Your task to perform on an android device: uninstall "Nova Launcher" Image 0: 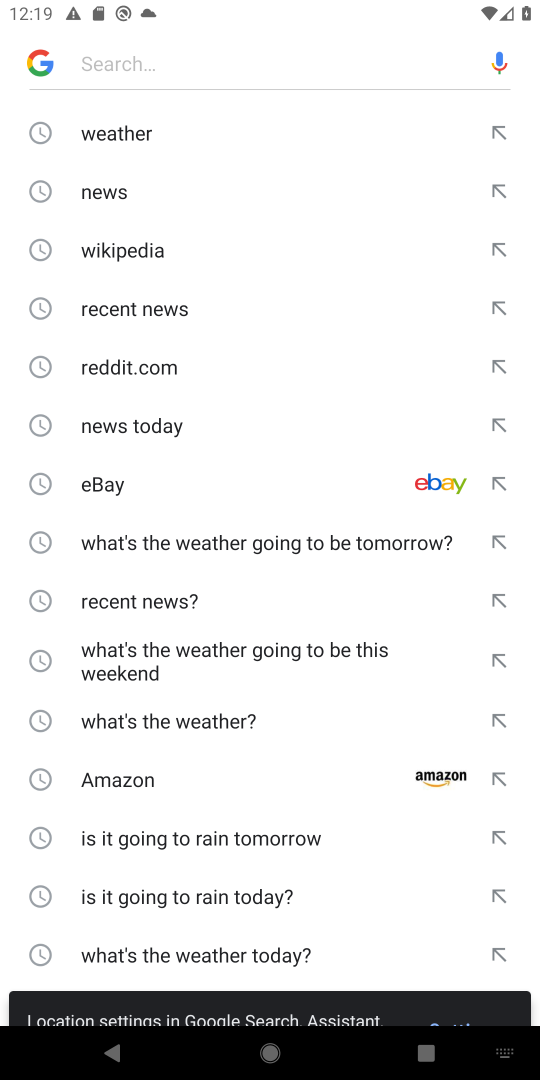
Step 0: press home button
Your task to perform on an android device: uninstall "Nova Launcher" Image 1: 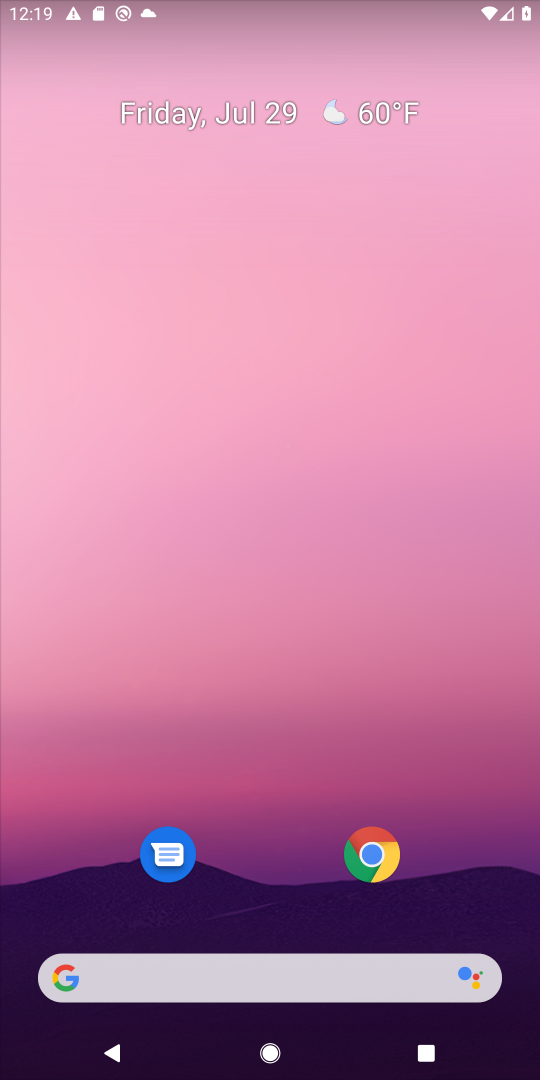
Step 1: drag from (239, 903) to (325, 0)
Your task to perform on an android device: uninstall "Nova Launcher" Image 2: 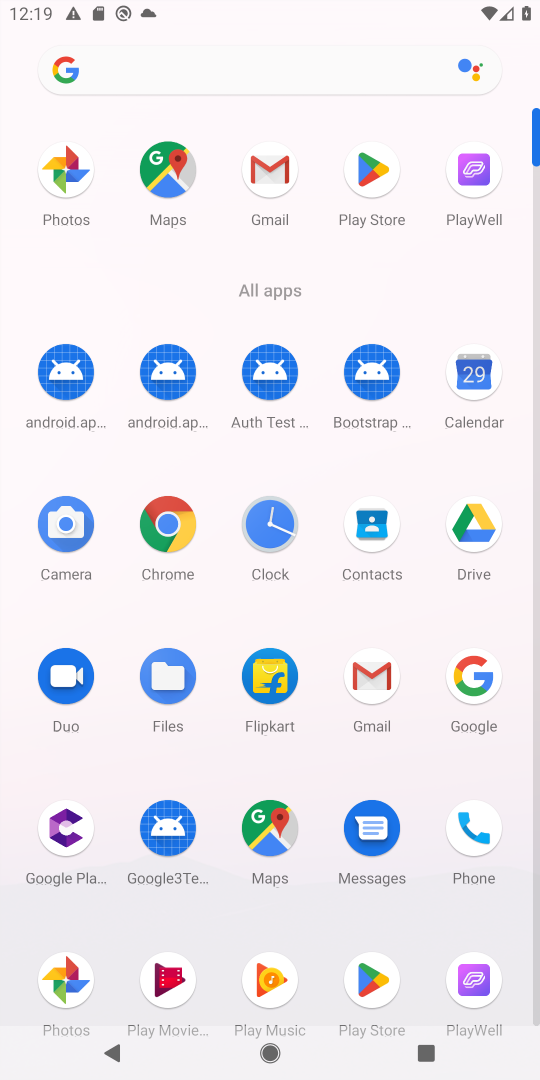
Step 2: click (361, 173)
Your task to perform on an android device: uninstall "Nova Launcher" Image 3: 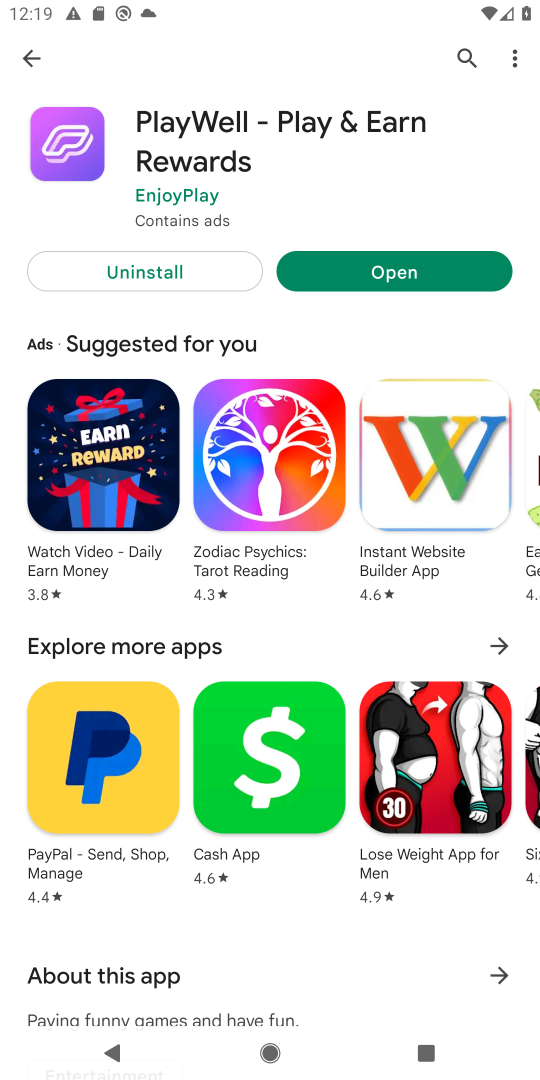
Step 3: click (464, 56)
Your task to perform on an android device: uninstall "Nova Launcher" Image 4: 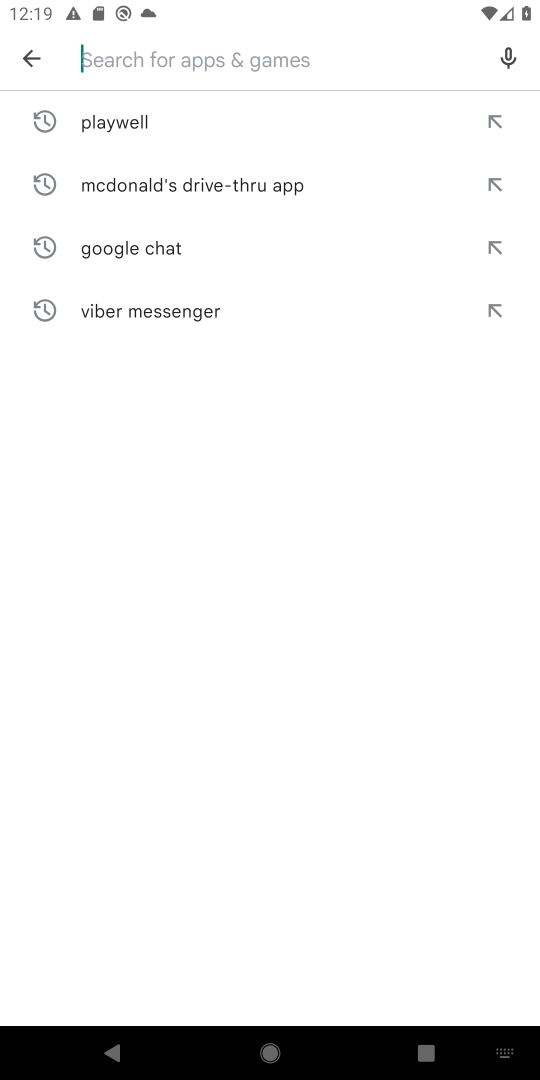
Step 4: type "nova launcher"
Your task to perform on an android device: uninstall "Nova Launcher" Image 5: 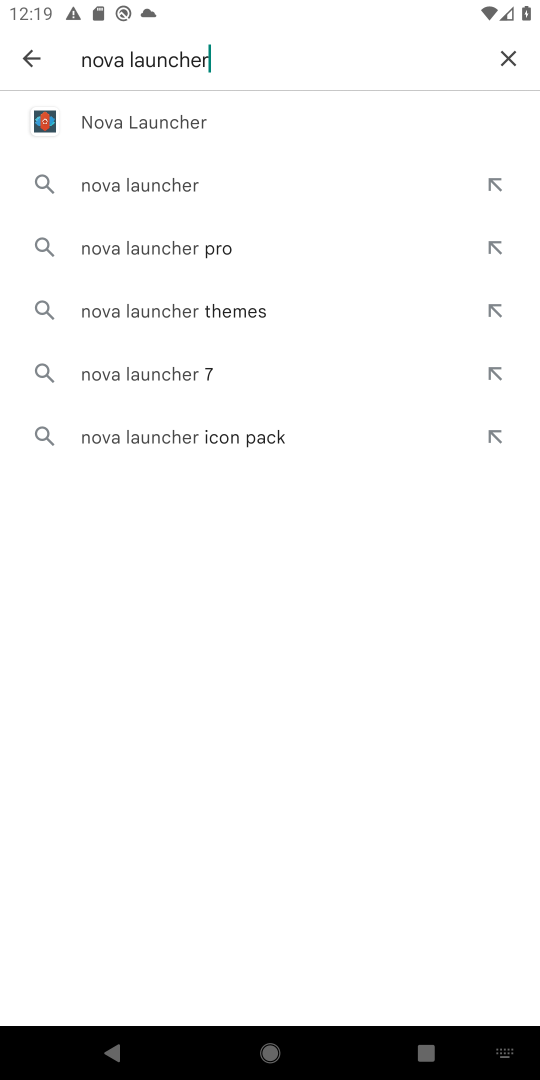
Step 5: click (251, 121)
Your task to perform on an android device: uninstall "Nova Launcher" Image 6: 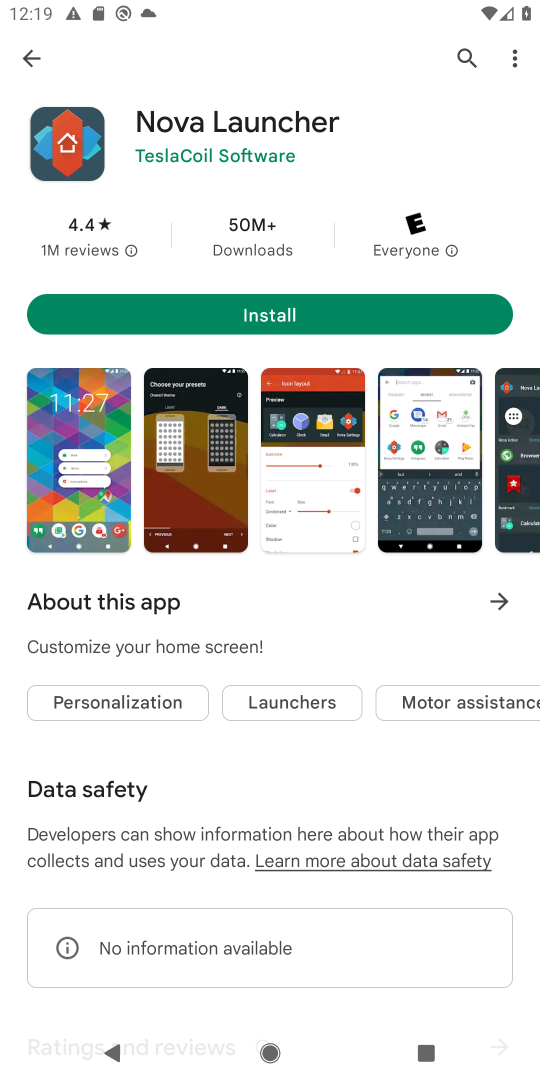
Step 6: task complete